Your task to perform on an android device: check data usage Image 0: 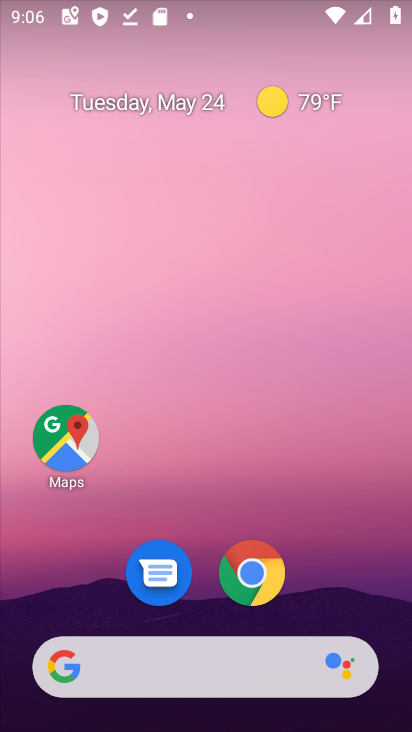
Step 0: drag from (340, 407) to (409, 155)
Your task to perform on an android device: check data usage Image 1: 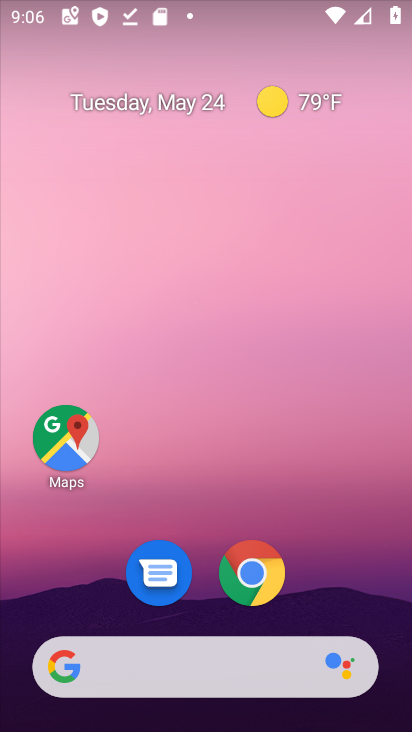
Step 1: drag from (317, 667) to (218, 158)
Your task to perform on an android device: check data usage Image 2: 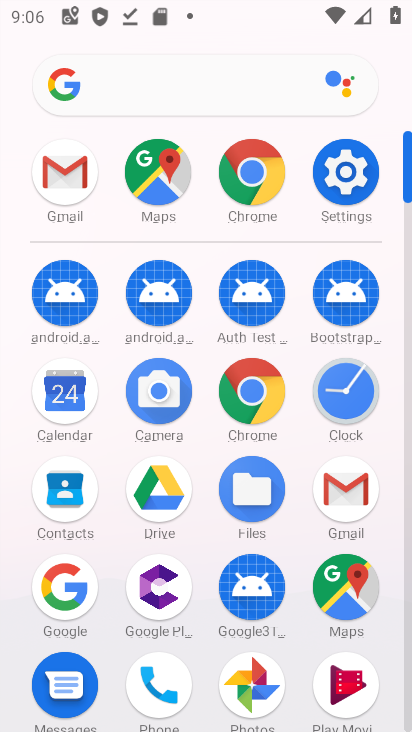
Step 2: click (338, 184)
Your task to perform on an android device: check data usage Image 3: 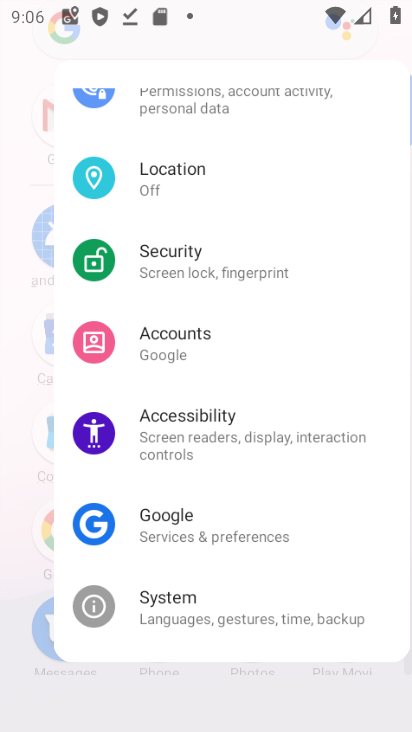
Step 3: click (349, 170)
Your task to perform on an android device: check data usage Image 4: 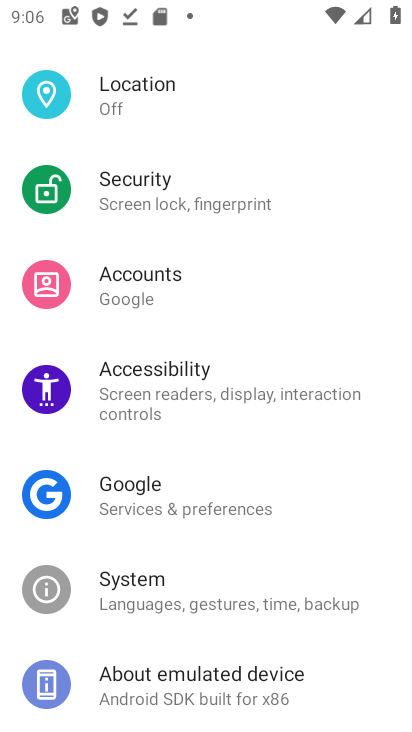
Step 4: click (349, 170)
Your task to perform on an android device: check data usage Image 5: 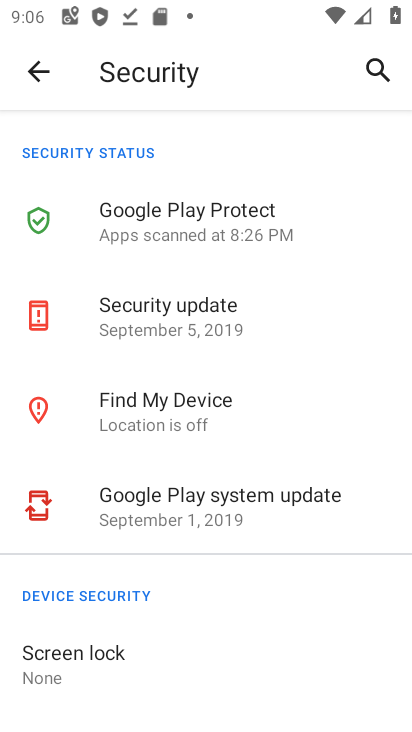
Step 5: click (15, 69)
Your task to perform on an android device: check data usage Image 6: 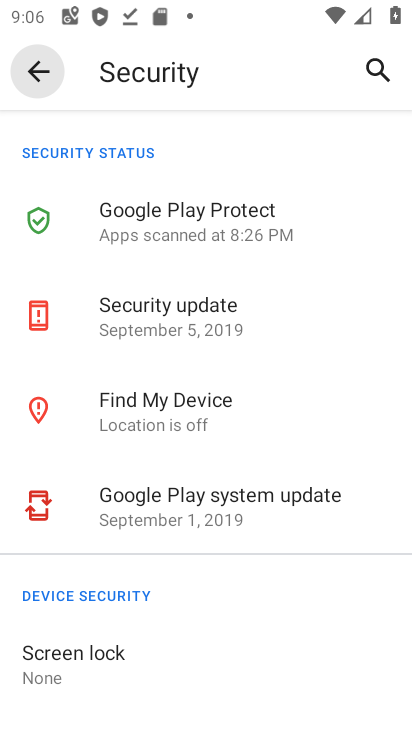
Step 6: click (28, 70)
Your task to perform on an android device: check data usage Image 7: 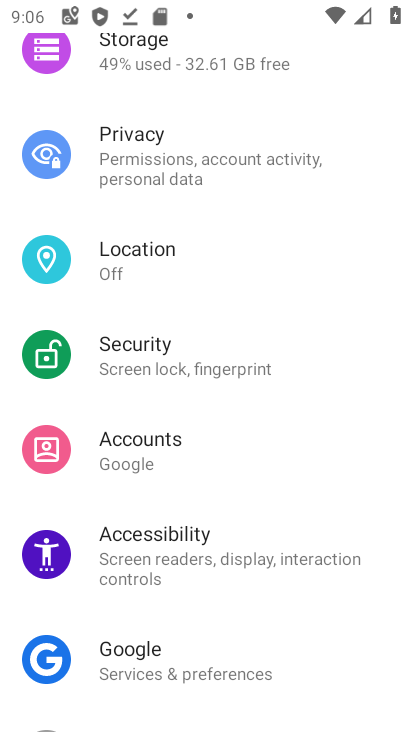
Step 7: drag from (161, 176) to (232, 579)
Your task to perform on an android device: check data usage Image 8: 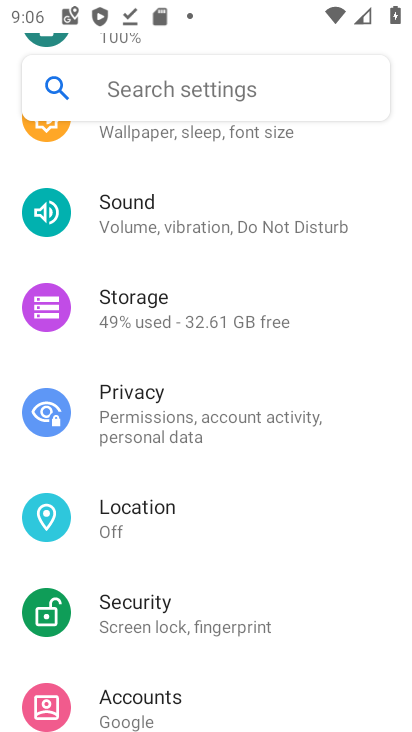
Step 8: drag from (150, 150) to (232, 431)
Your task to perform on an android device: check data usage Image 9: 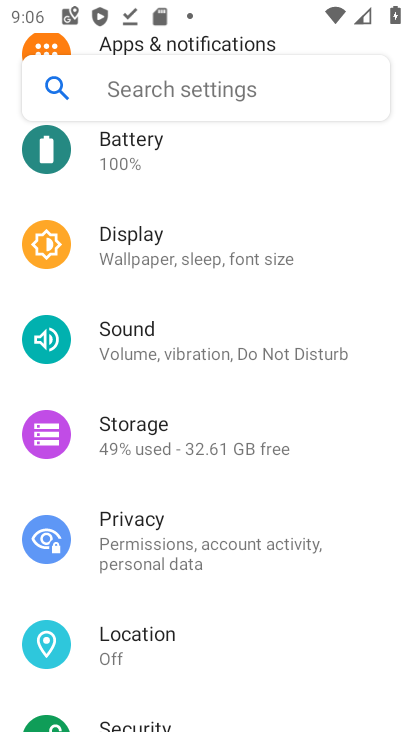
Step 9: drag from (198, 251) to (321, 586)
Your task to perform on an android device: check data usage Image 10: 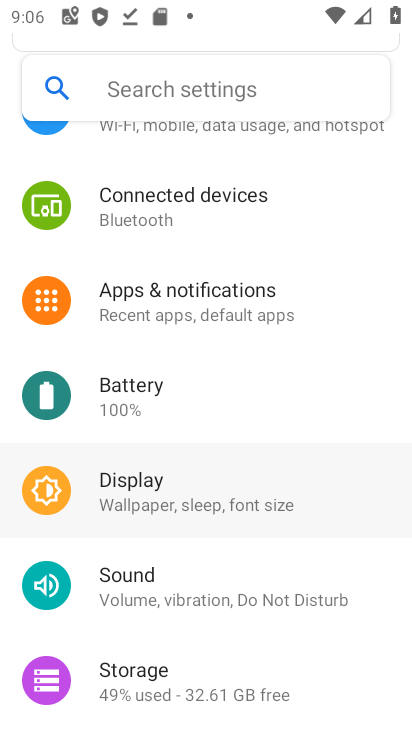
Step 10: drag from (260, 259) to (356, 690)
Your task to perform on an android device: check data usage Image 11: 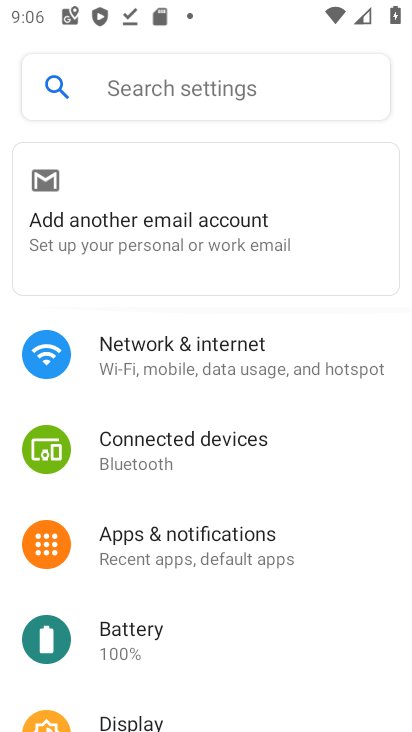
Step 11: drag from (243, 288) to (327, 662)
Your task to perform on an android device: check data usage Image 12: 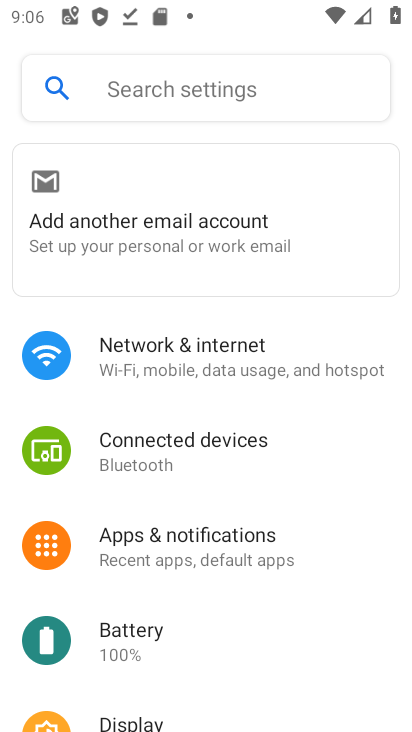
Step 12: click (204, 355)
Your task to perform on an android device: check data usage Image 13: 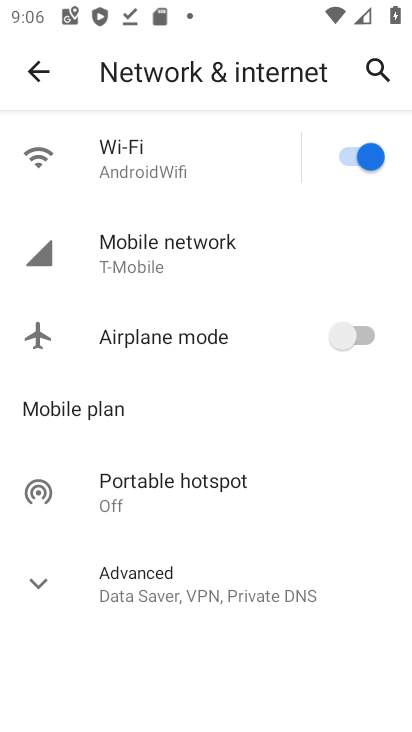
Step 13: task complete